Your task to perform on an android device: Clear the cart on amazon.com. Search for corsair k70 on amazon.com, select the first entry, add it to the cart, then select checkout. Image 0: 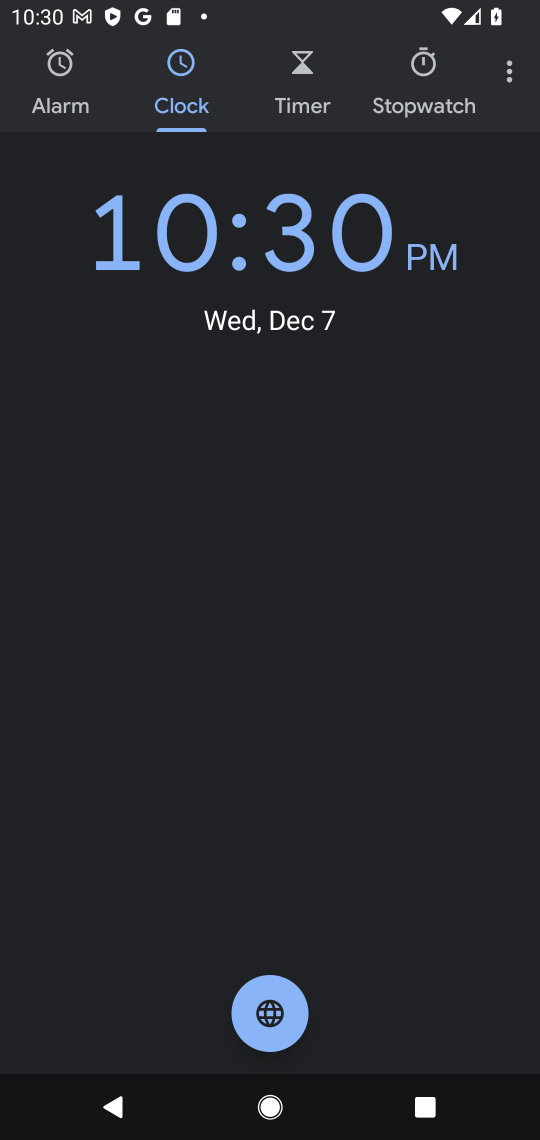
Step 0: press home button
Your task to perform on an android device: Clear the cart on amazon.com. Search for corsair k70 on amazon.com, select the first entry, add it to the cart, then select checkout. Image 1: 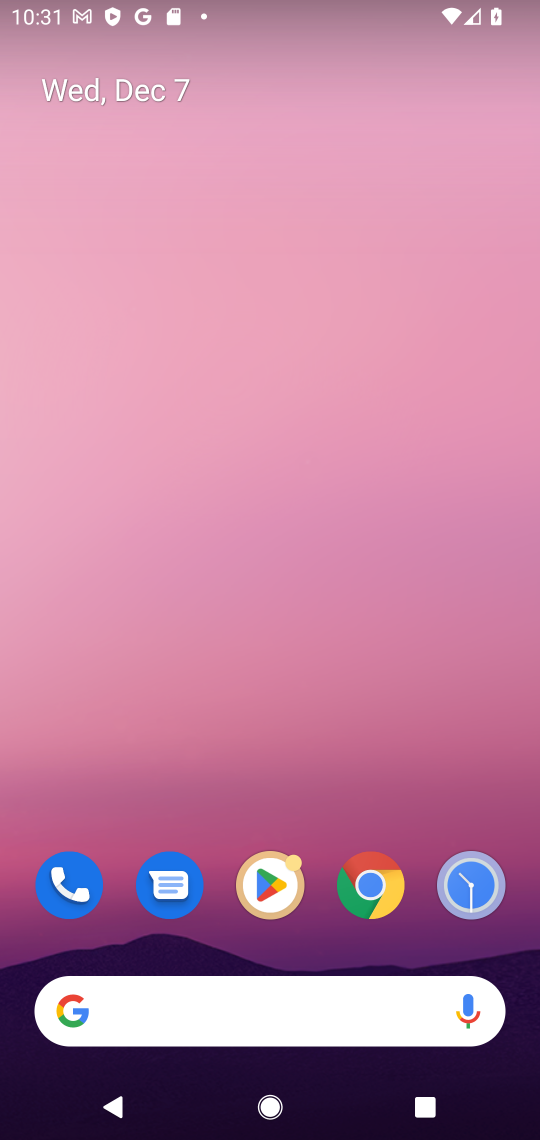
Step 1: click (362, 878)
Your task to perform on an android device: Clear the cart on amazon.com. Search for corsair k70 on amazon.com, select the first entry, add it to the cart, then select checkout. Image 2: 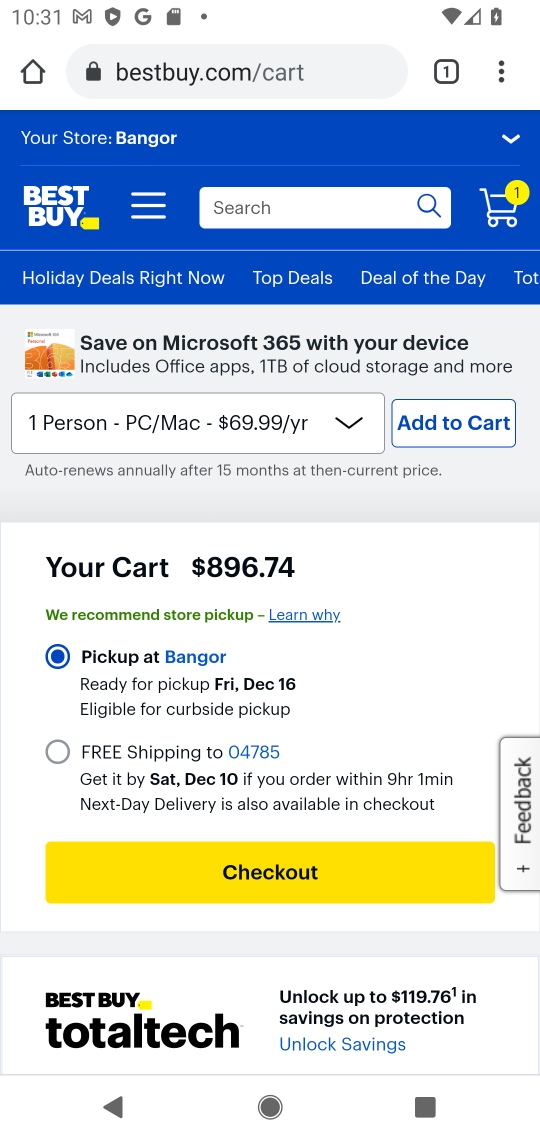
Step 2: click (218, 75)
Your task to perform on an android device: Clear the cart on amazon.com. Search for corsair k70 on amazon.com, select the first entry, add it to the cart, then select checkout. Image 3: 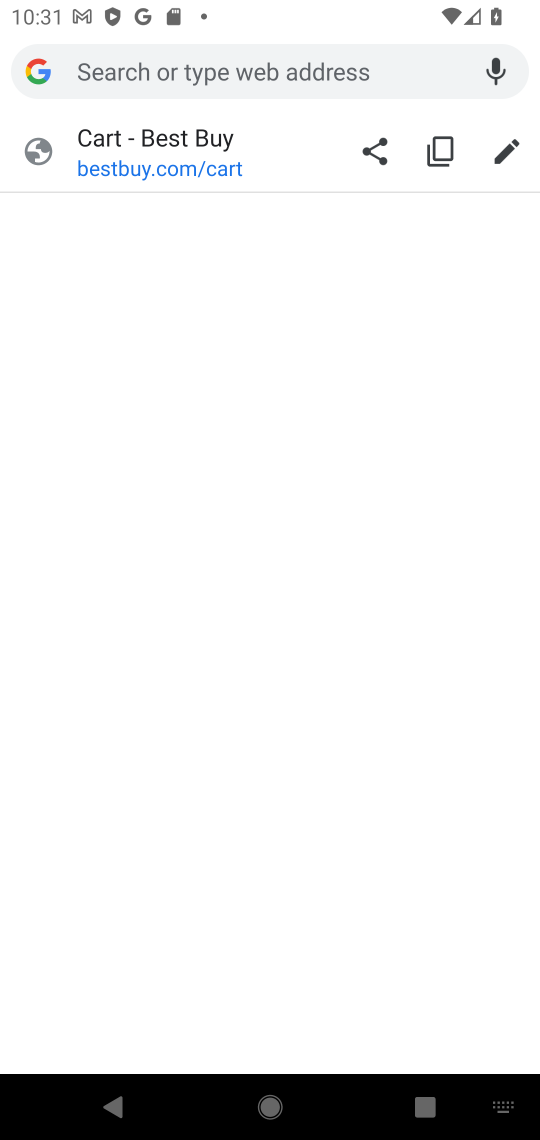
Step 3: type "amazon"
Your task to perform on an android device: Clear the cart on amazon.com. Search for corsair k70 on amazon.com, select the first entry, add it to the cart, then select checkout. Image 4: 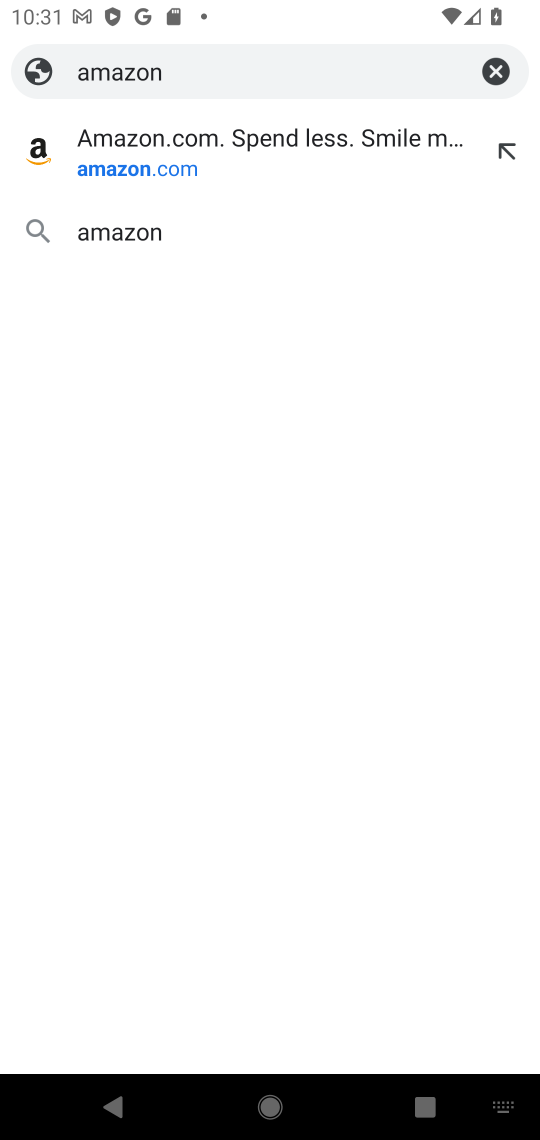
Step 4: click (109, 153)
Your task to perform on an android device: Clear the cart on amazon.com. Search for corsair k70 on amazon.com, select the first entry, add it to the cart, then select checkout. Image 5: 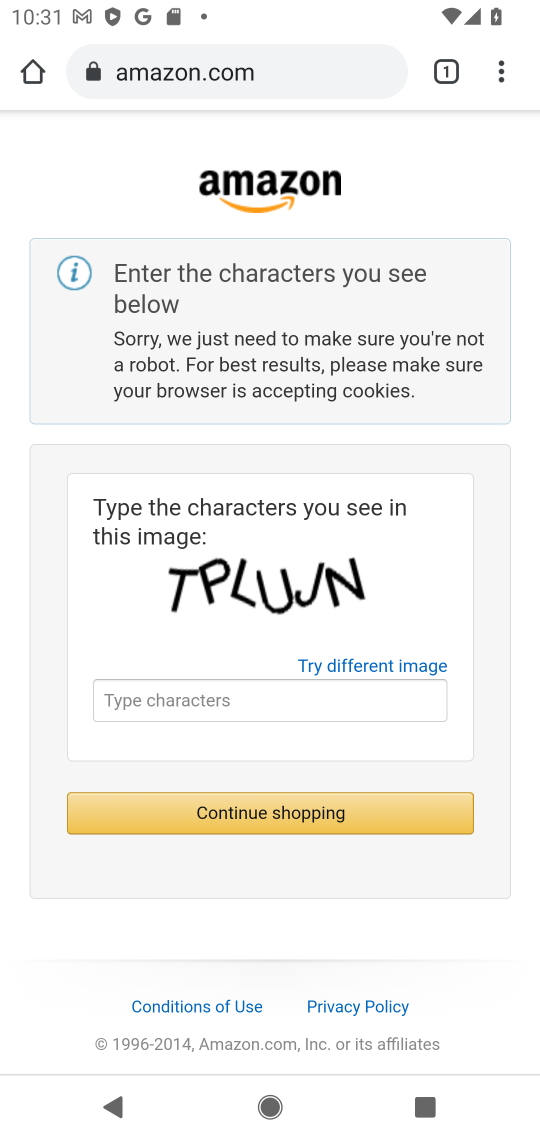
Step 5: click (242, 699)
Your task to perform on an android device: Clear the cart on amazon.com. Search for corsair k70 on amazon.com, select the first entry, add it to the cart, then select checkout. Image 6: 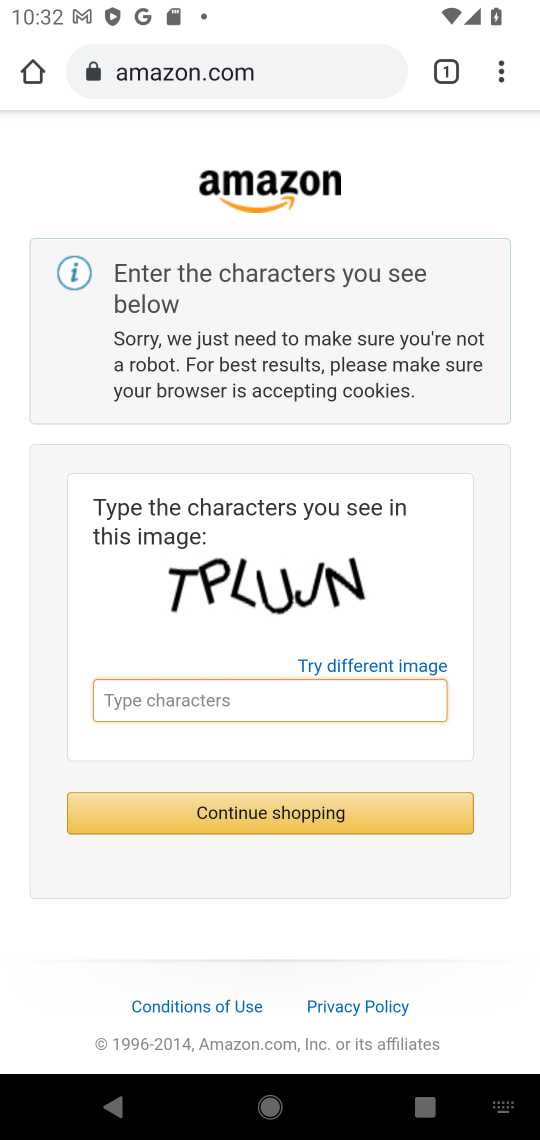
Step 6: type "TPLUJN"
Your task to perform on an android device: Clear the cart on amazon.com. Search for corsair k70 on amazon.com, select the first entry, add it to the cart, then select checkout. Image 7: 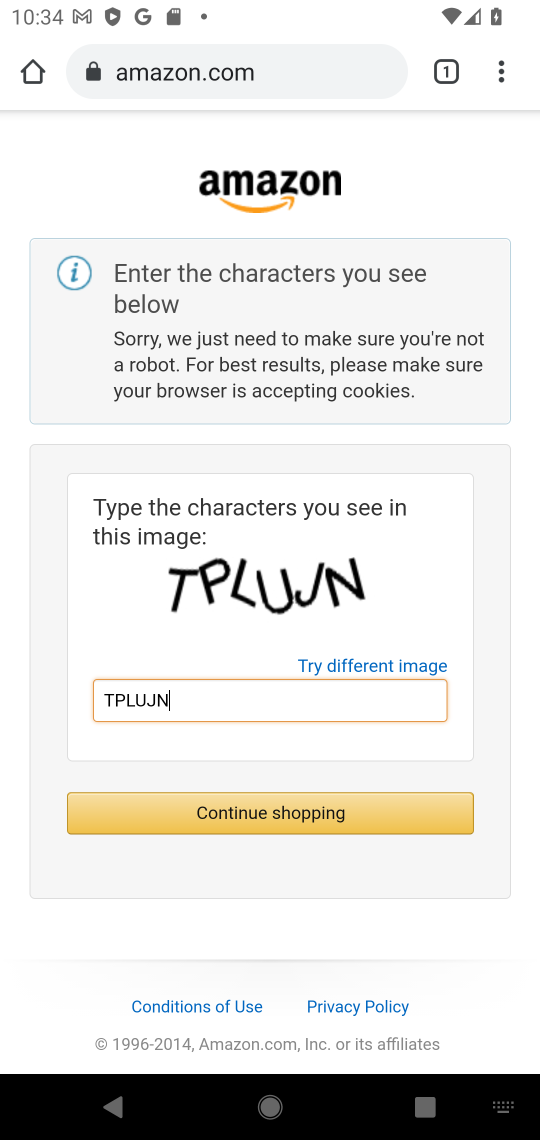
Step 7: click (367, 829)
Your task to perform on an android device: Clear the cart on amazon.com. Search for corsair k70 on amazon.com, select the first entry, add it to the cart, then select checkout. Image 8: 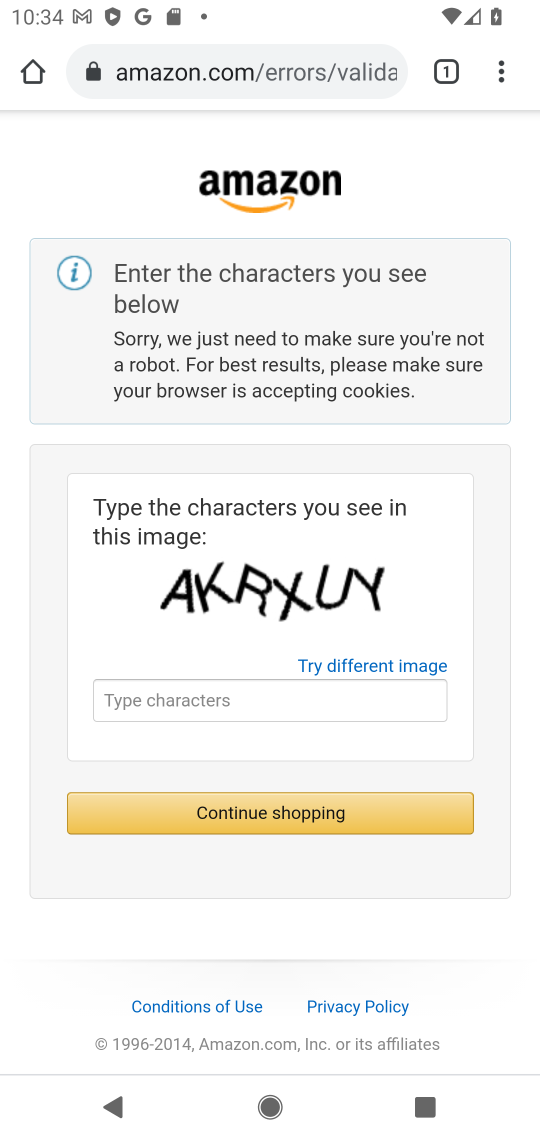
Step 8: click (296, 811)
Your task to perform on an android device: Clear the cart on amazon.com. Search for corsair k70 on amazon.com, select the first entry, add it to the cart, then select checkout. Image 9: 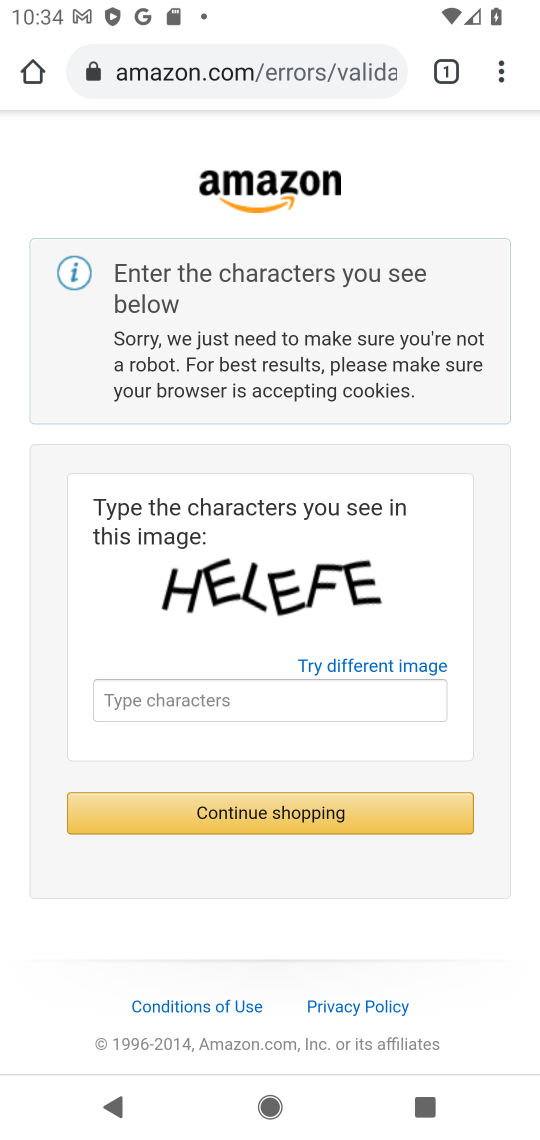
Step 9: click (266, 695)
Your task to perform on an android device: Clear the cart on amazon.com. Search for corsair k70 on amazon.com, select the first entry, add it to the cart, then select checkout. Image 10: 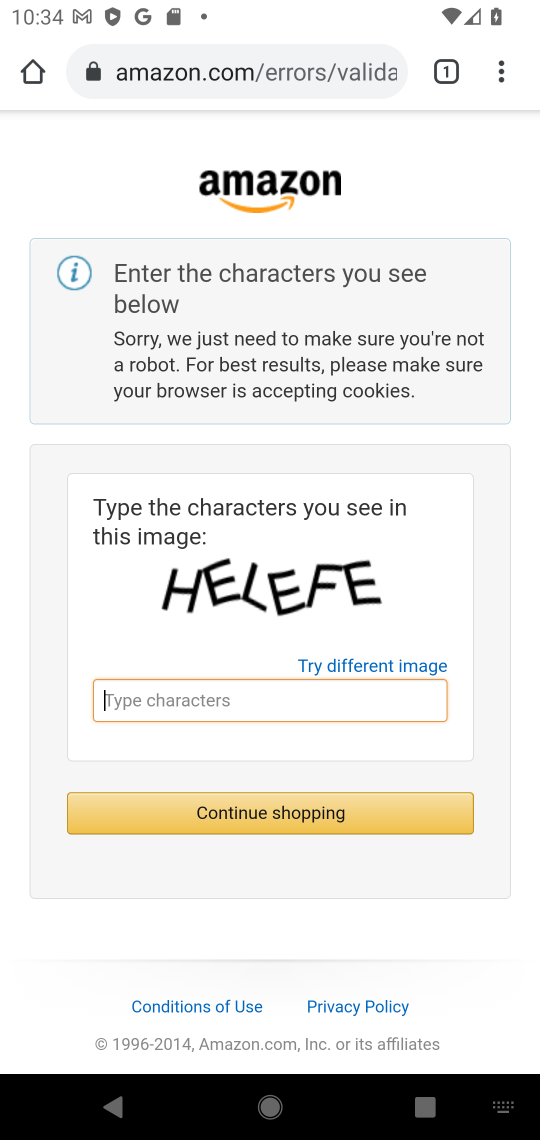
Step 10: type "HELEFE"
Your task to perform on an android device: Clear the cart on amazon.com. Search for corsair k70 on amazon.com, select the first entry, add it to the cart, then select checkout. Image 11: 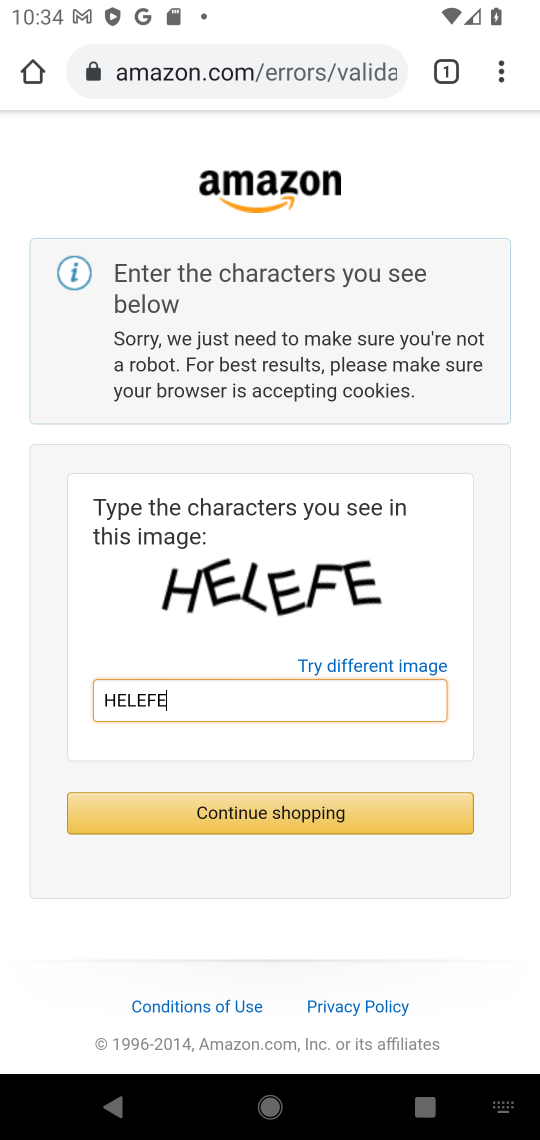
Step 11: click (289, 819)
Your task to perform on an android device: Clear the cart on amazon.com. Search for corsair k70 on amazon.com, select the first entry, add it to the cart, then select checkout. Image 12: 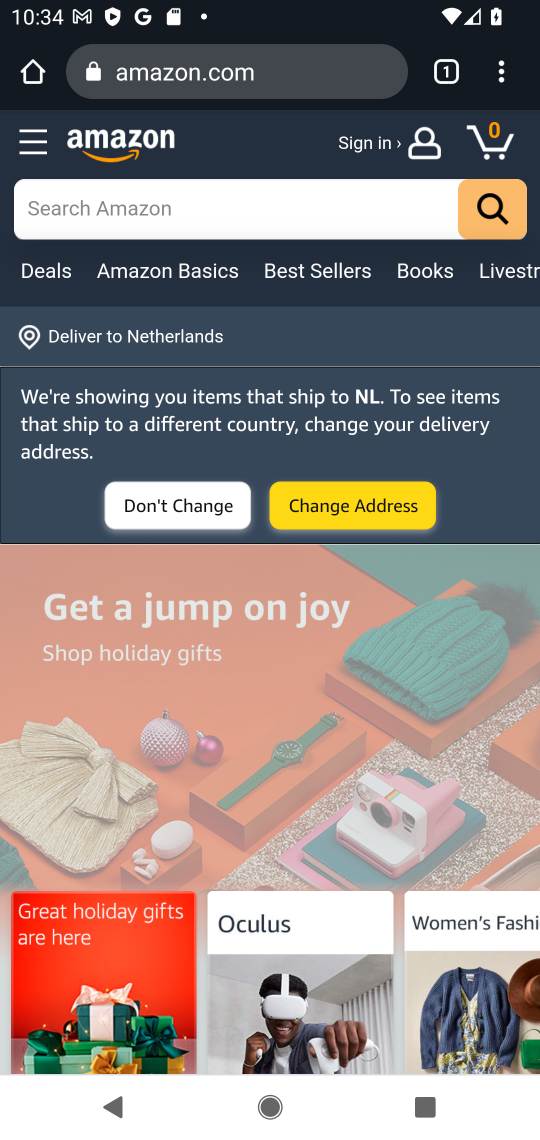
Step 12: click (280, 214)
Your task to perform on an android device: Clear the cart on amazon.com. Search for corsair k70 on amazon.com, select the first entry, add it to the cart, then select checkout. Image 13: 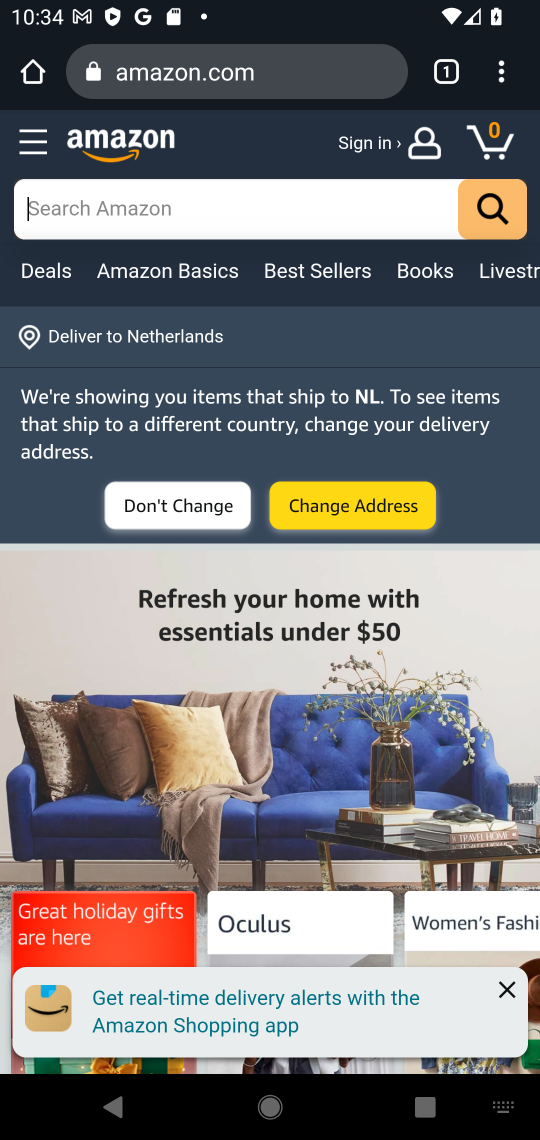
Step 13: type "corsair k70"
Your task to perform on an android device: Clear the cart on amazon.com. Search for corsair k70 on amazon.com, select the first entry, add it to the cart, then select checkout. Image 14: 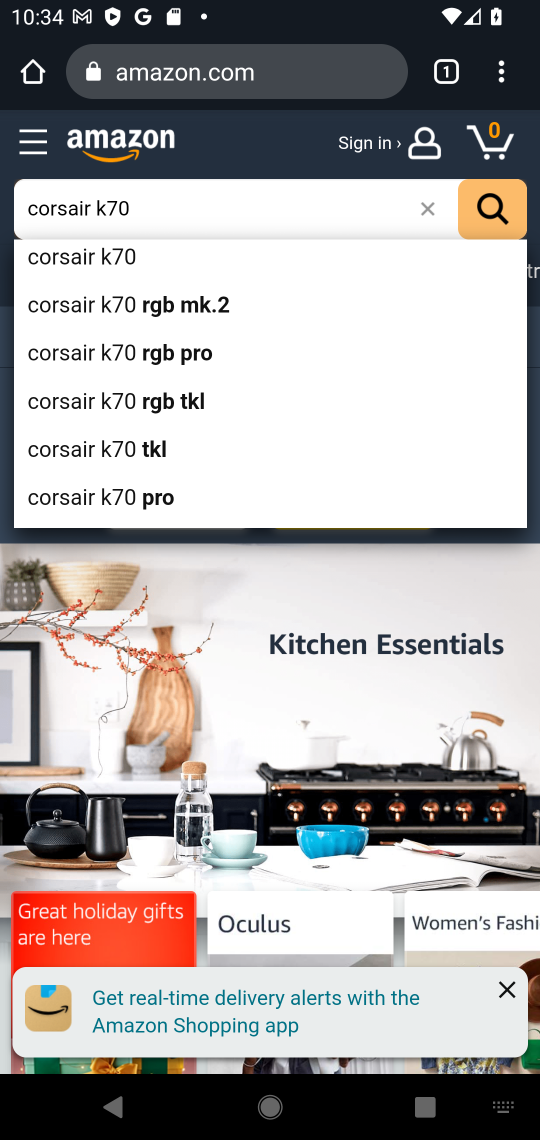
Step 14: click (139, 255)
Your task to perform on an android device: Clear the cart on amazon.com. Search for corsair k70 on amazon.com, select the first entry, add it to the cart, then select checkout. Image 15: 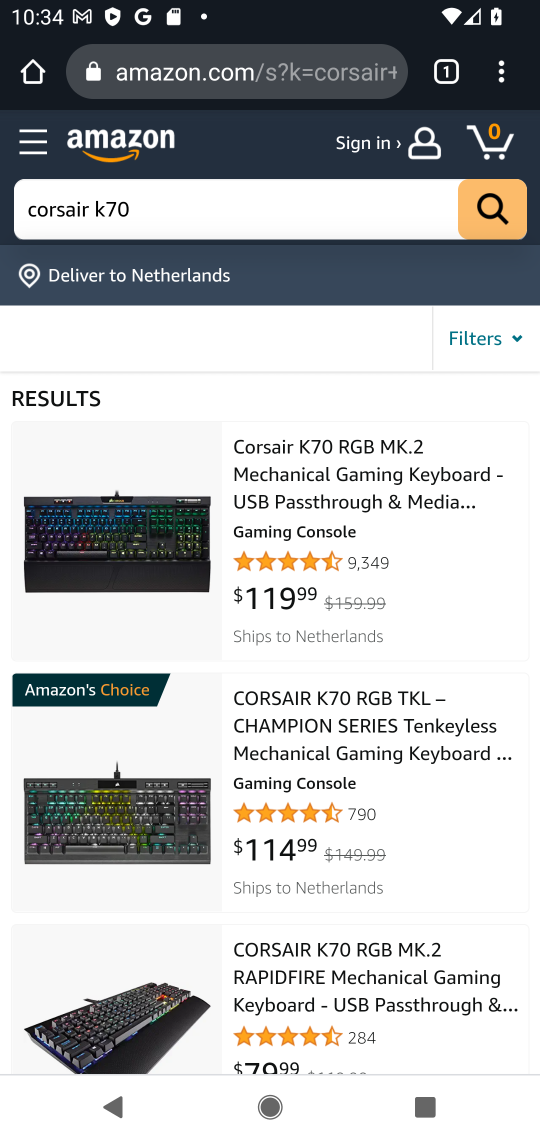
Step 15: click (161, 573)
Your task to perform on an android device: Clear the cart on amazon.com. Search for corsair k70 on amazon.com, select the first entry, add it to the cart, then select checkout. Image 16: 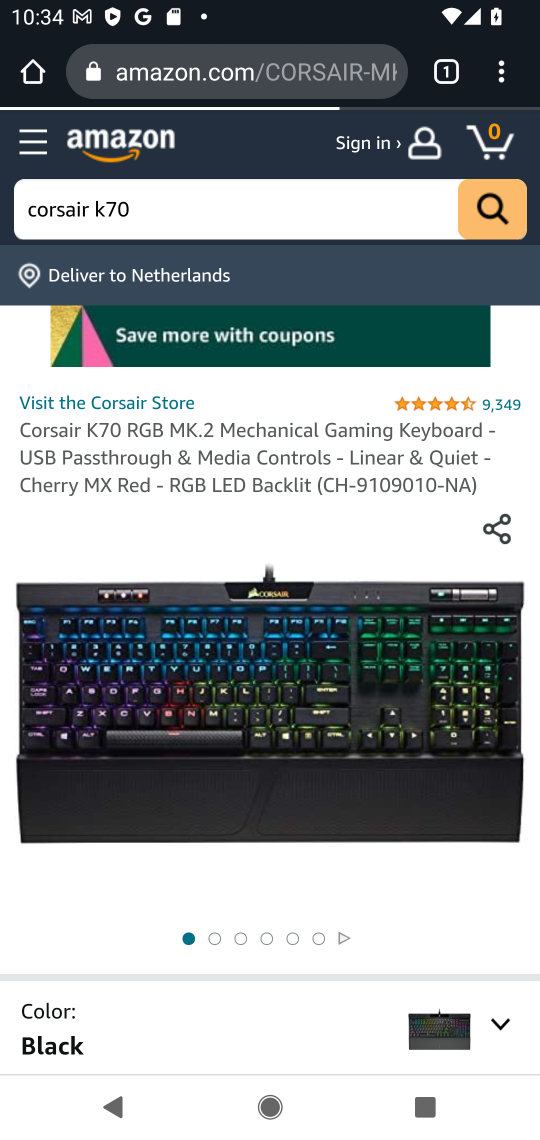
Step 16: drag from (400, 953) to (374, 224)
Your task to perform on an android device: Clear the cart on amazon.com. Search for corsair k70 on amazon.com, select the first entry, add it to the cart, then select checkout. Image 17: 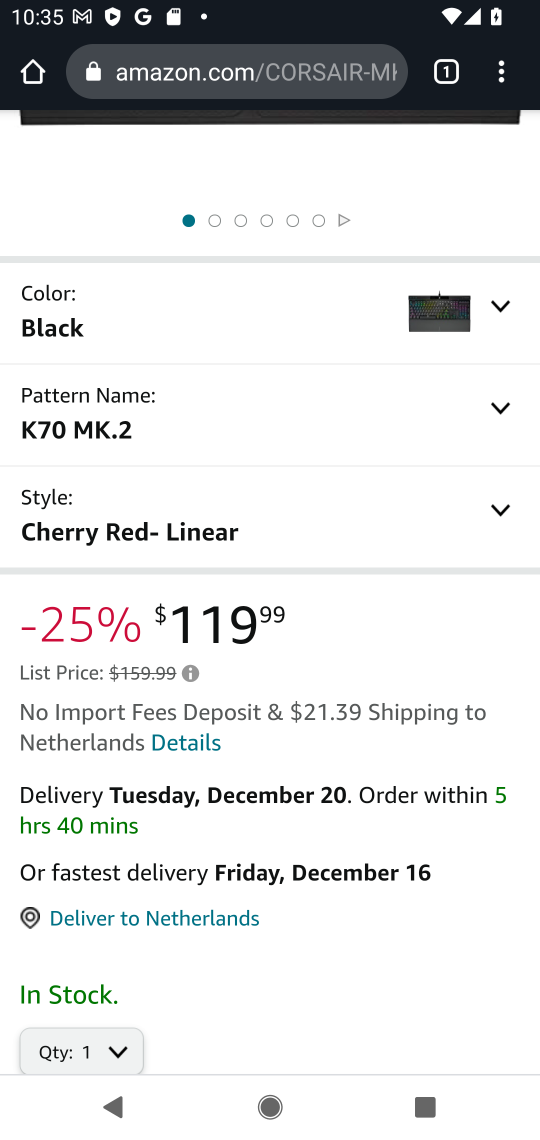
Step 17: drag from (423, 973) to (388, 98)
Your task to perform on an android device: Clear the cart on amazon.com. Search for corsair k70 on amazon.com, select the first entry, add it to the cart, then select checkout. Image 18: 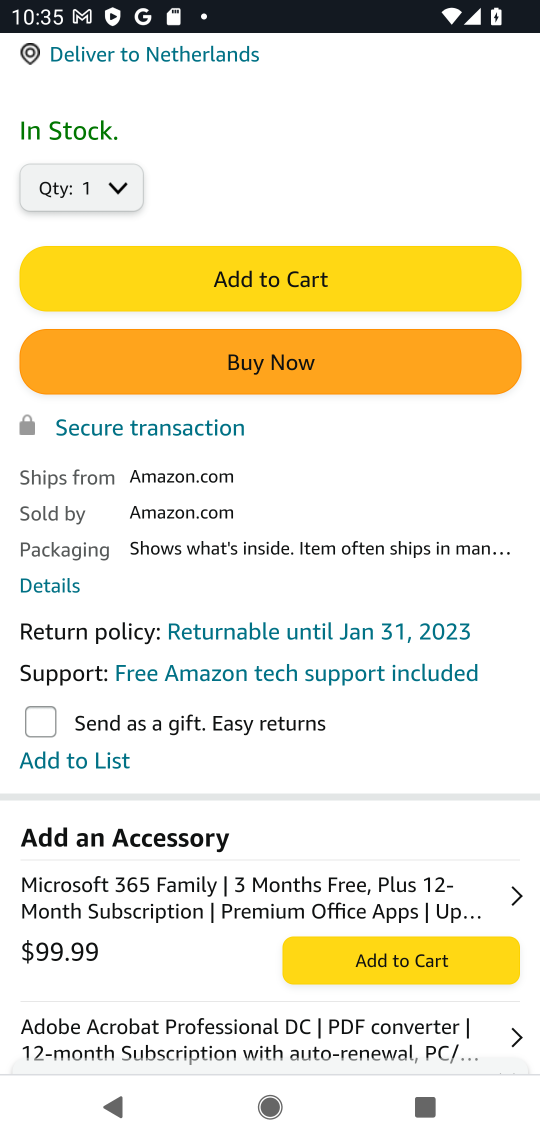
Step 18: click (312, 277)
Your task to perform on an android device: Clear the cart on amazon.com. Search for corsair k70 on amazon.com, select the first entry, add it to the cart, then select checkout. Image 19: 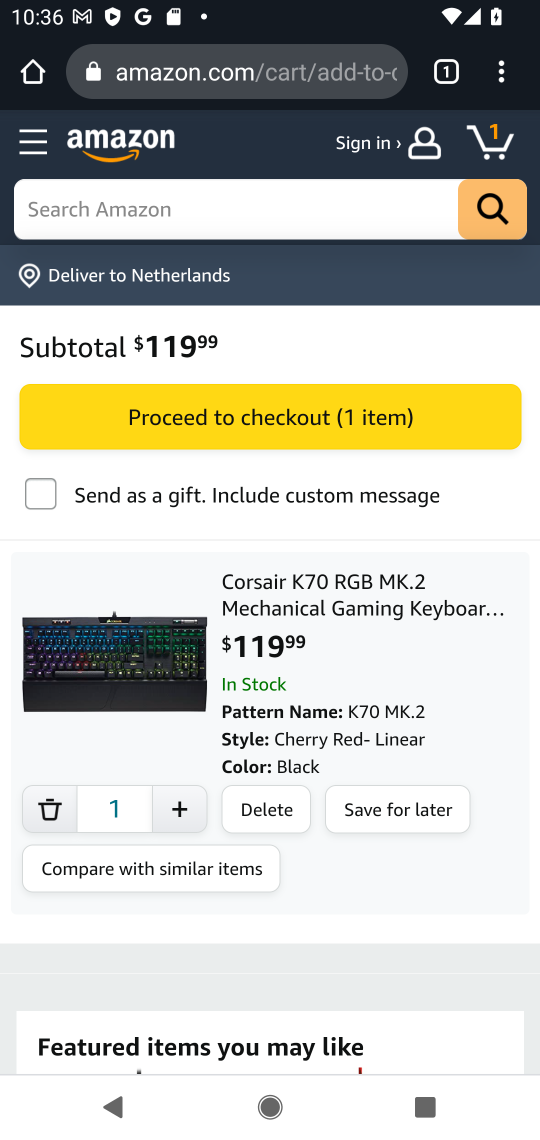
Step 19: click (308, 427)
Your task to perform on an android device: Clear the cart on amazon.com. Search for corsair k70 on amazon.com, select the first entry, add it to the cart, then select checkout. Image 20: 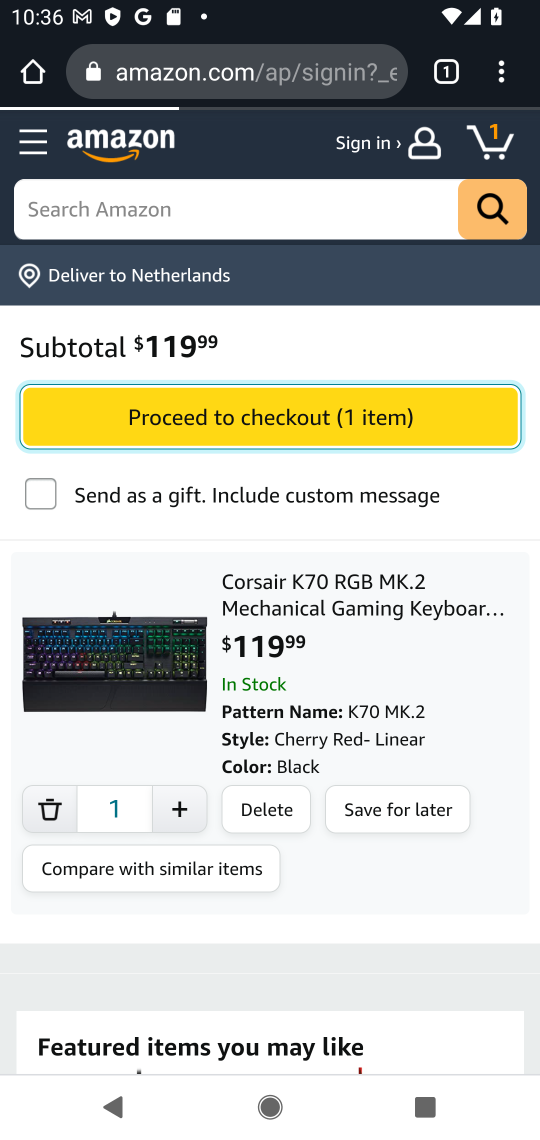
Step 20: task complete